Your task to perform on an android device: Open display settings Image 0: 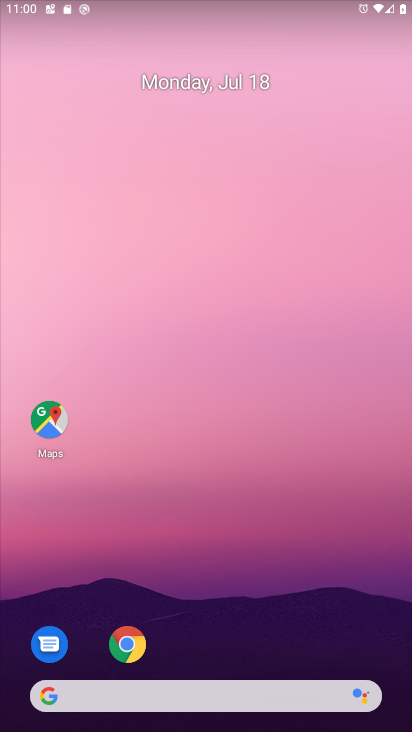
Step 0: drag from (210, 658) to (262, 220)
Your task to perform on an android device: Open display settings Image 1: 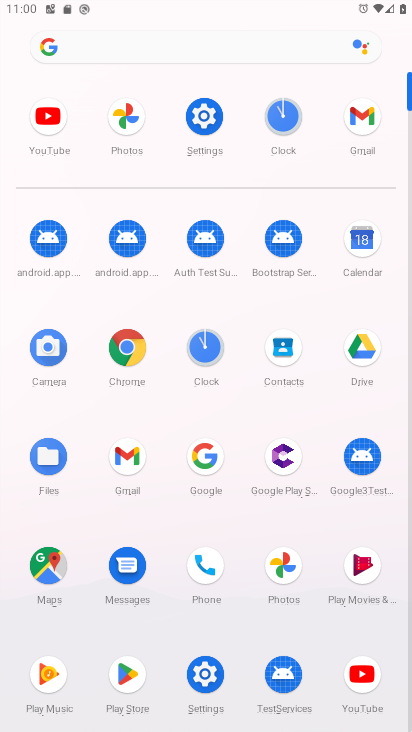
Step 1: click (212, 143)
Your task to perform on an android device: Open display settings Image 2: 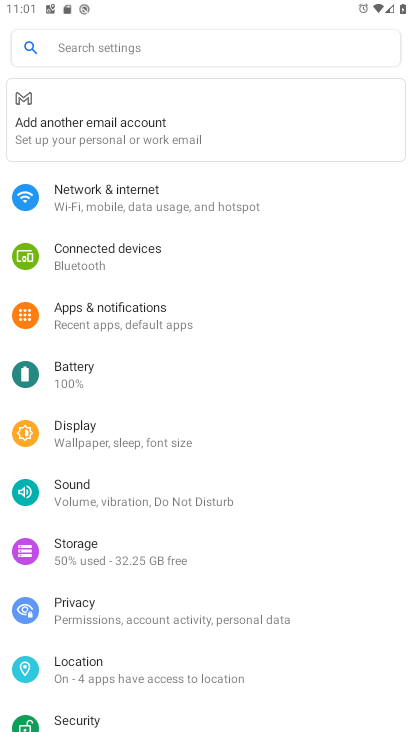
Step 2: click (151, 421)
Your task to perform on an android device: Open display settings Image 3: 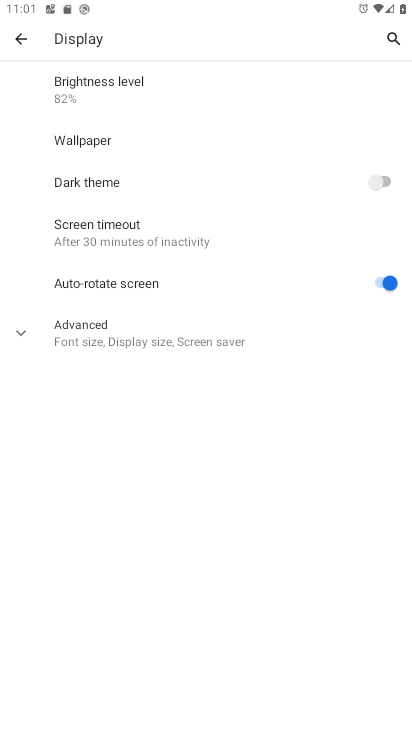
Step 3: task complete